Your task to perform on an android device: open a new tab in the chrome app Image 0: 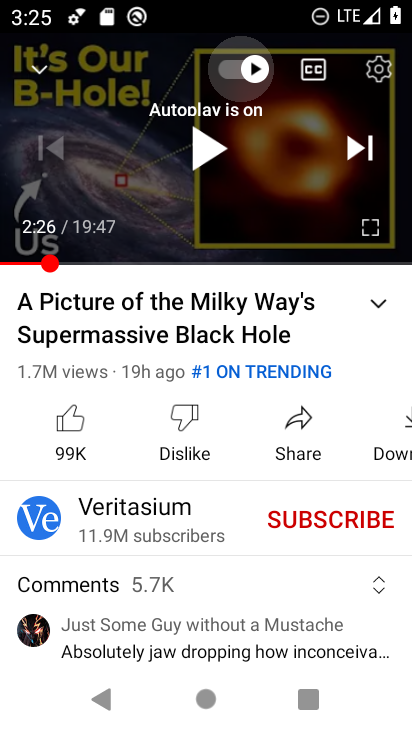
Step 0: press home button
Your task to perform on an android device: open a new tab in the chrome app Image 1: 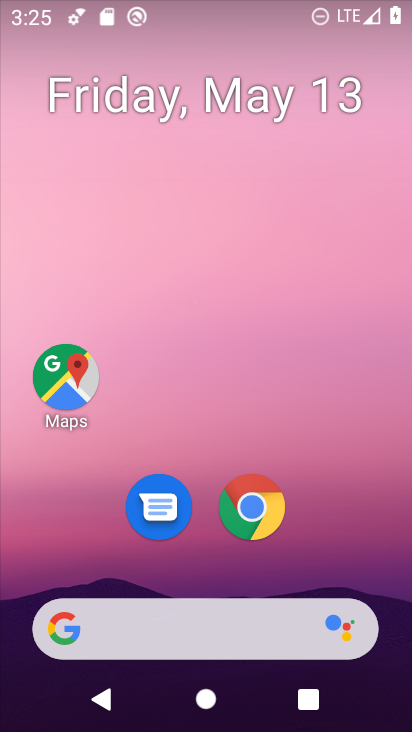
Step 1: click (281, 512)
Your task to perform on an android device: open a new tab in the chrome app Image 2: 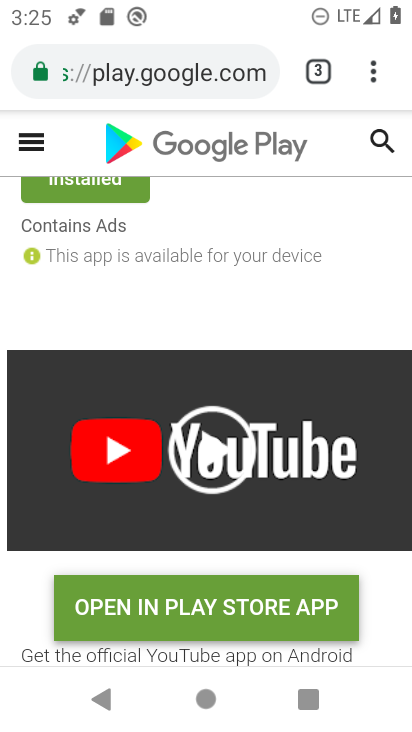
Step 2: click (323, 81)
Your task to perform on an android device: open a new tab in the chrome app Image 3: 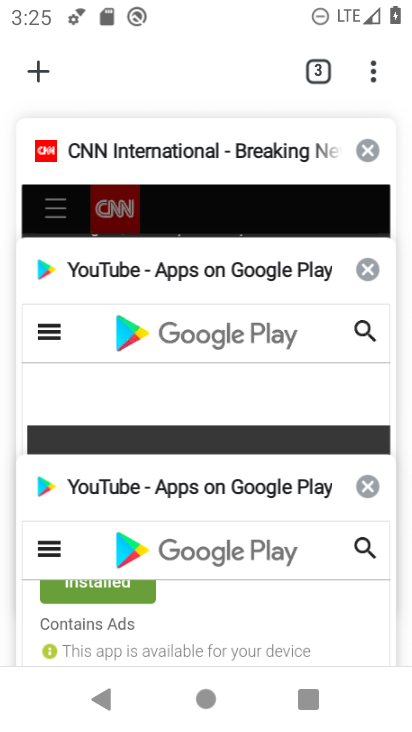
Step 3: click (34, 64)
Your task to perform on an android device: open a new tab in the chrome app Image 4: 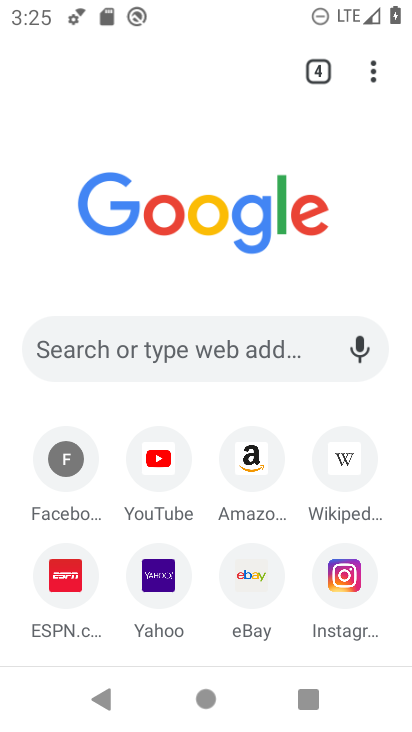
Step 4: task complete